Your task to perform on an android device: uninstall "Airtel Thanks" Image 0: 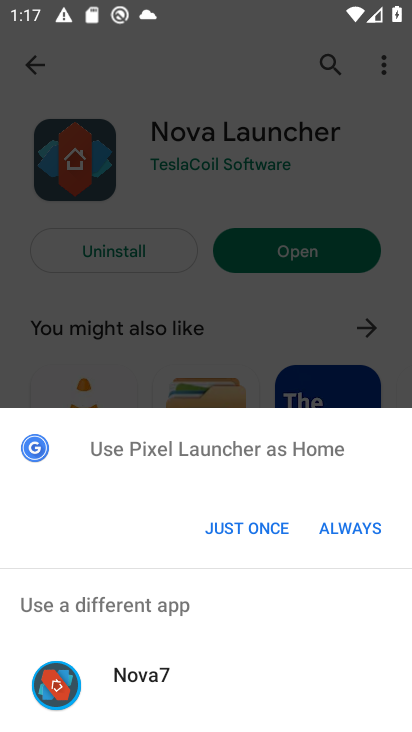
Step 0: press home button
Your task to perform on an android device: uninstall "Airtel Thanks" Image 1: 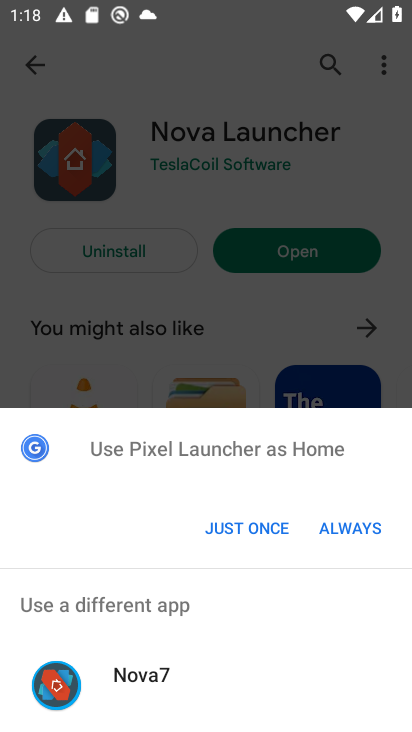
Step 1: click (249, 533)
Your task to perform on an android device: uninstall "Airtel Thanks" Image 2: 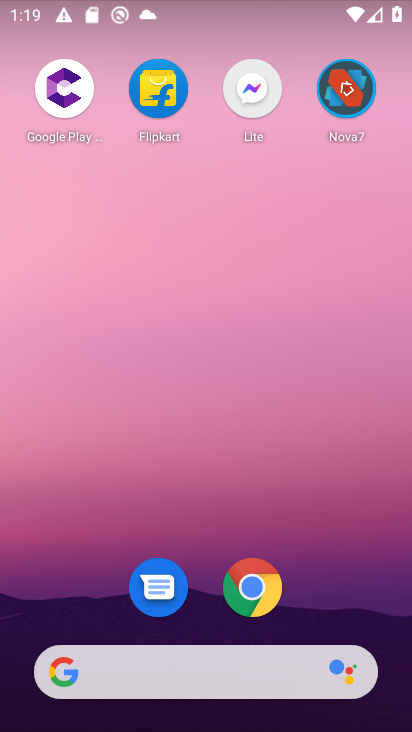
Step 2: drag from (182, 640) to (249, 90)
Your task to perform on an android device: uninstall "Airtel Thanks" Image 3: 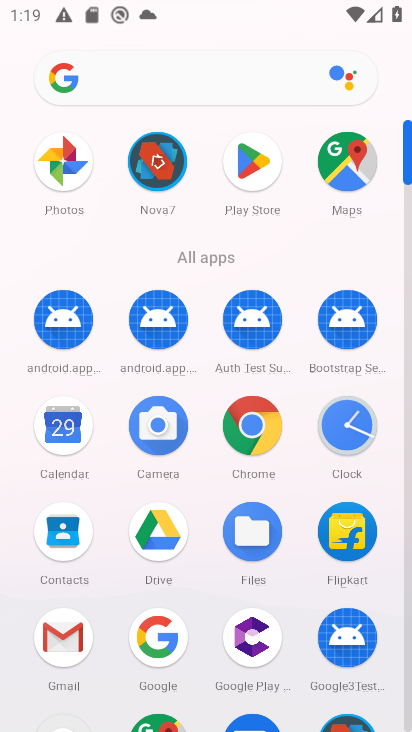
Step 3: click (258, 156)
Your task to perform on an android device: uninstall "Airtel Thanks" Image 4: 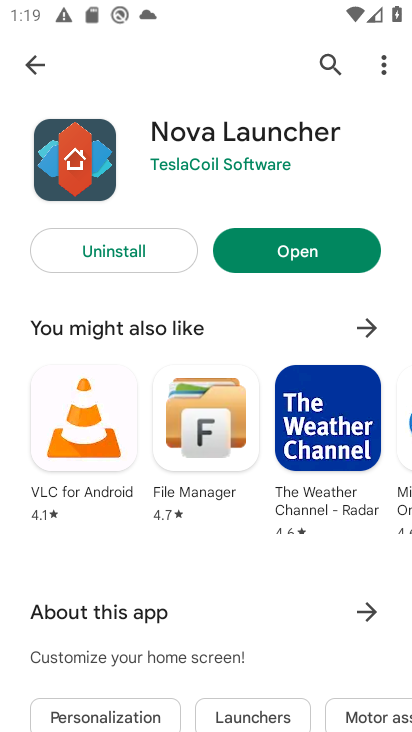
Step 4: click (330, 59)
Your task to perform on an android device: uninstall "Airtel Thanks" Image 5: 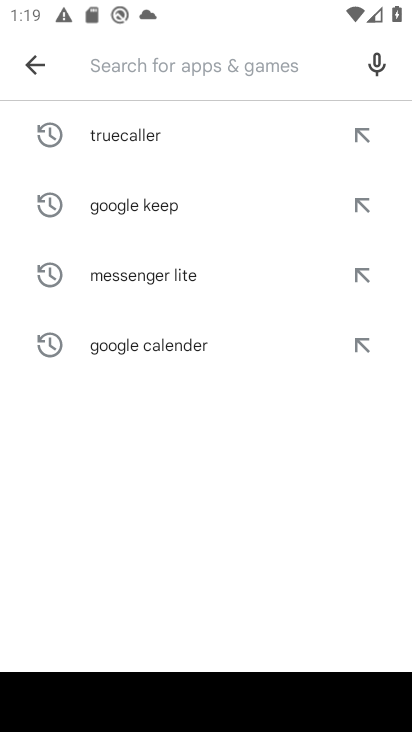
Step 5: type "airtel thanks"
Your task to perform on an android device: uninstall "Airtel Thanks" Image 6: 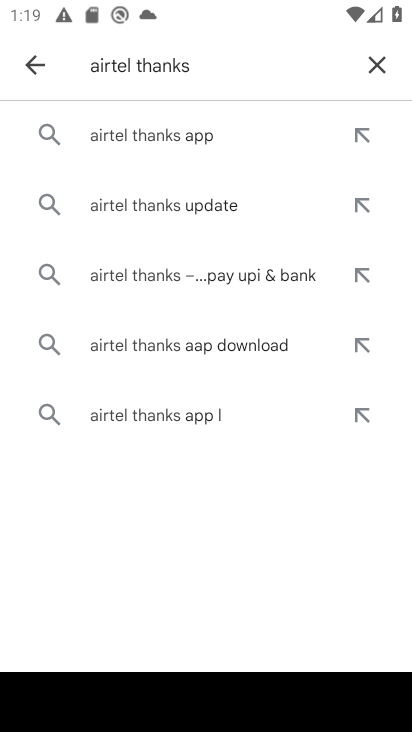
Step 6: click (123, 136)
Your task to perform on an android device: uninstall "Airtel Thanks" Image 7: 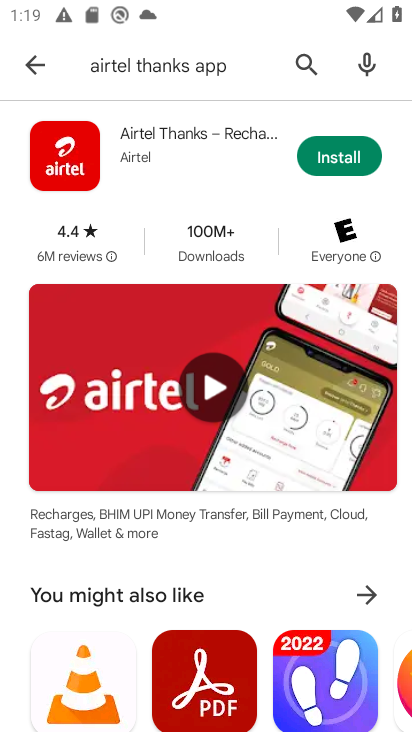
Step 7: task complete